Your task to perform on an android device: Add logitech g910 to the cart on walmart.com, then select checkout. Image 0: 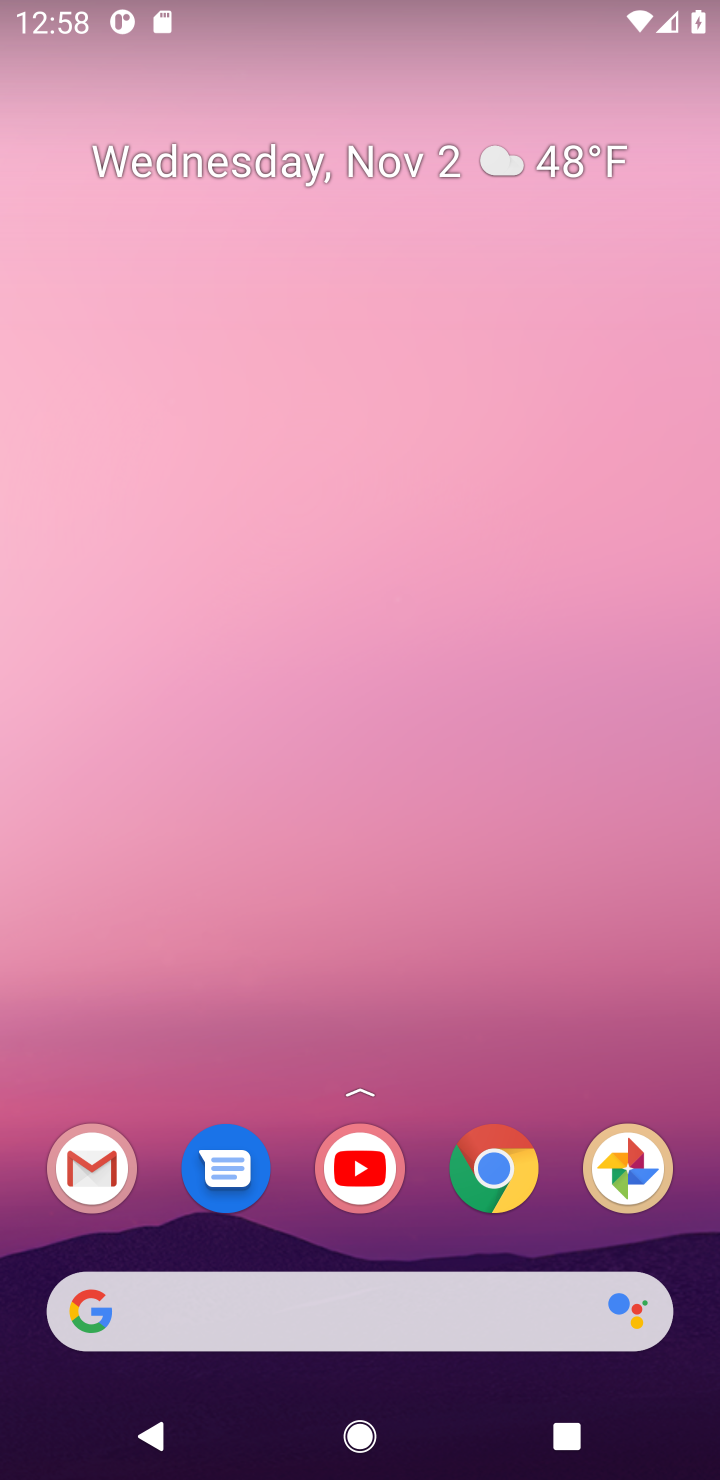
Step 0: drag from (348, 1217) to (433, 345)
Your task to perform on an android device: Add logitech g910 to the cart on walmart.com, then select checkout. Image 1: 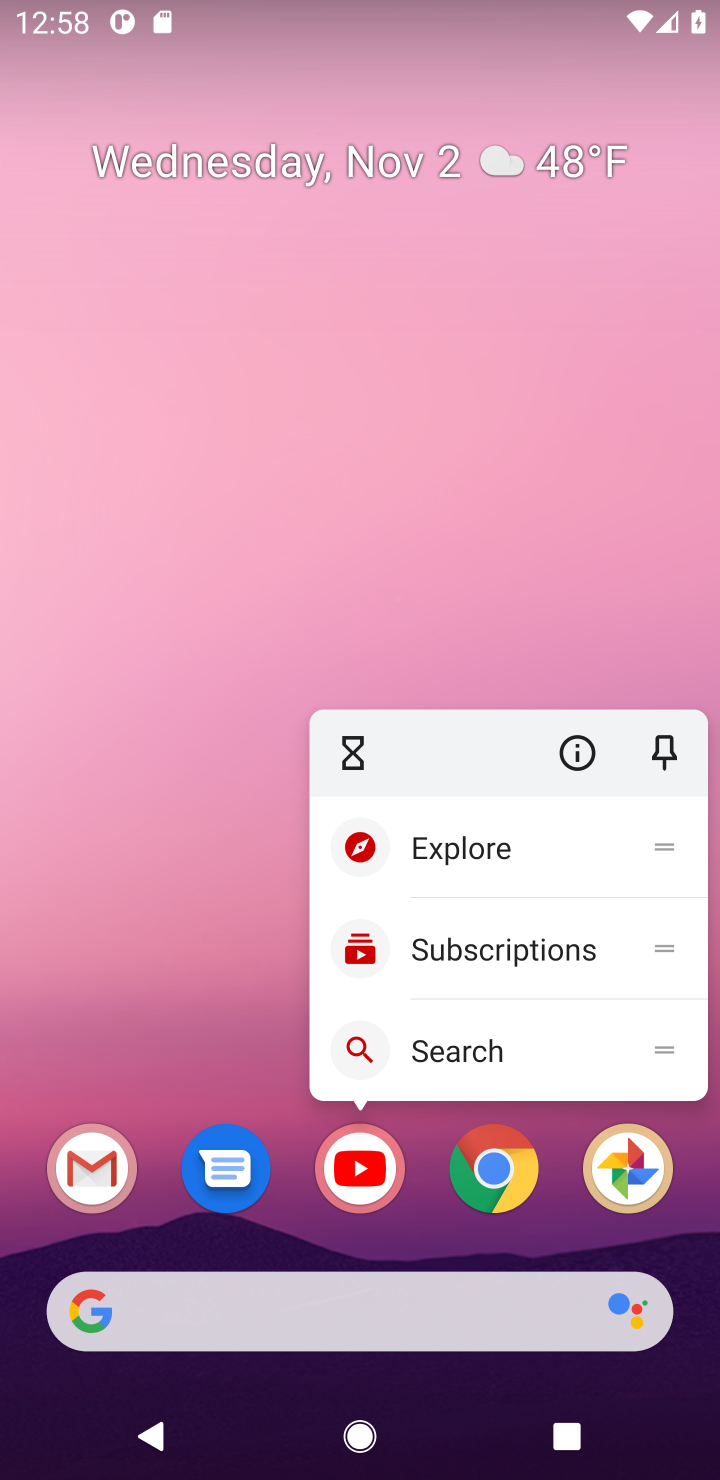
Step 1: click (349, 1230)
Your task to perform on an android device: Add logitech g910 to the cart on walmart.com, then select checkout. Image 2: 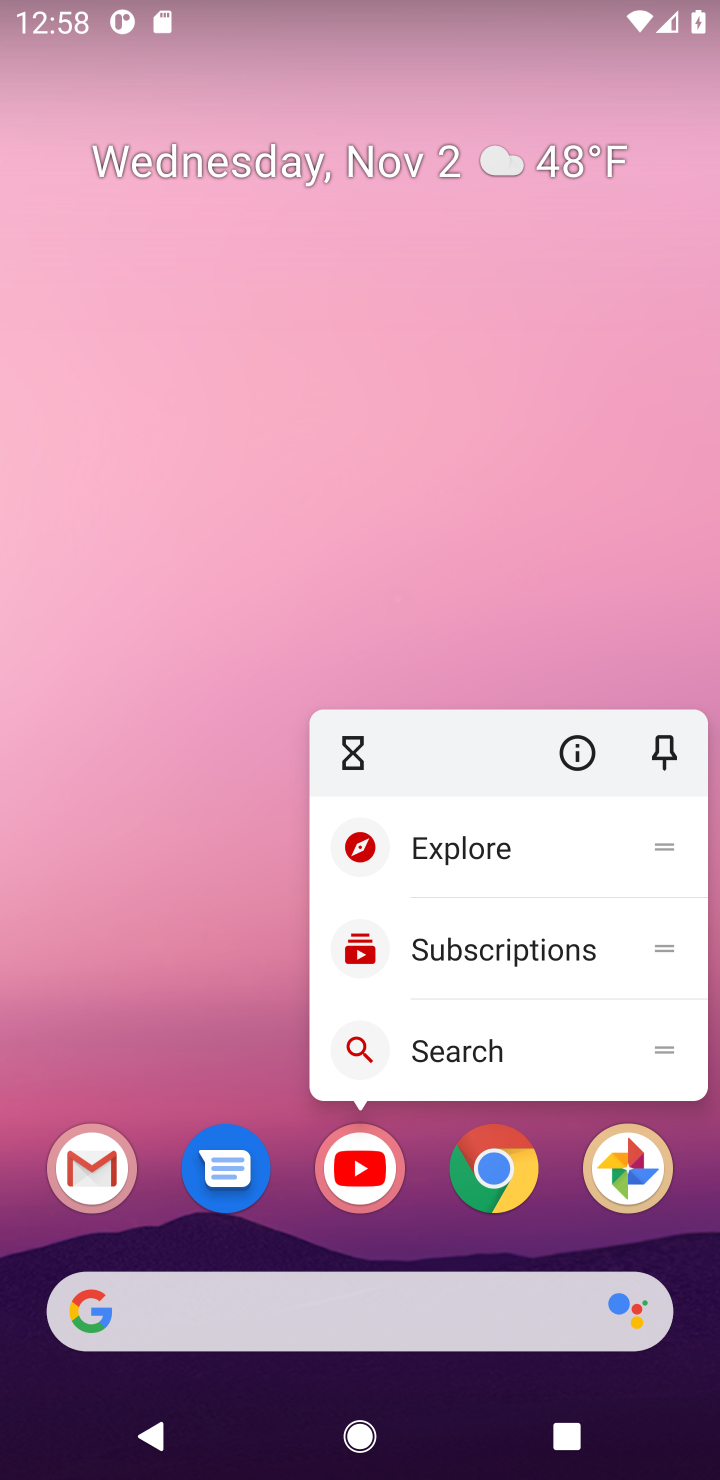
Step 2: click (310, 1255)
Your task to perform on an android device: Add logitech g910 to the cart on walmart.com, then select checkout. Image 3: 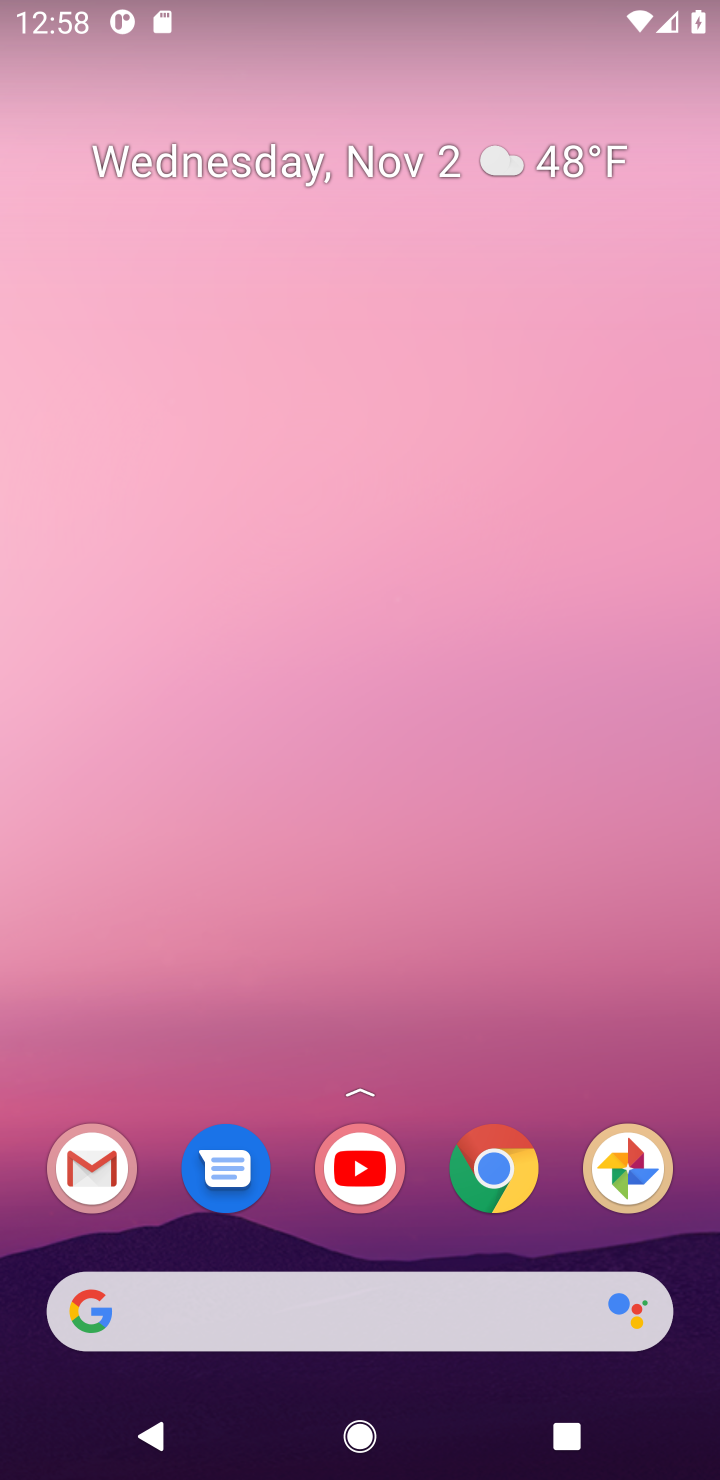
Step 3: drag from (310, 1241) to (335, 534)
Your task to perform on an android device: Add logitech g910 to the cart on walmart.com, then select checkout. Image 4: 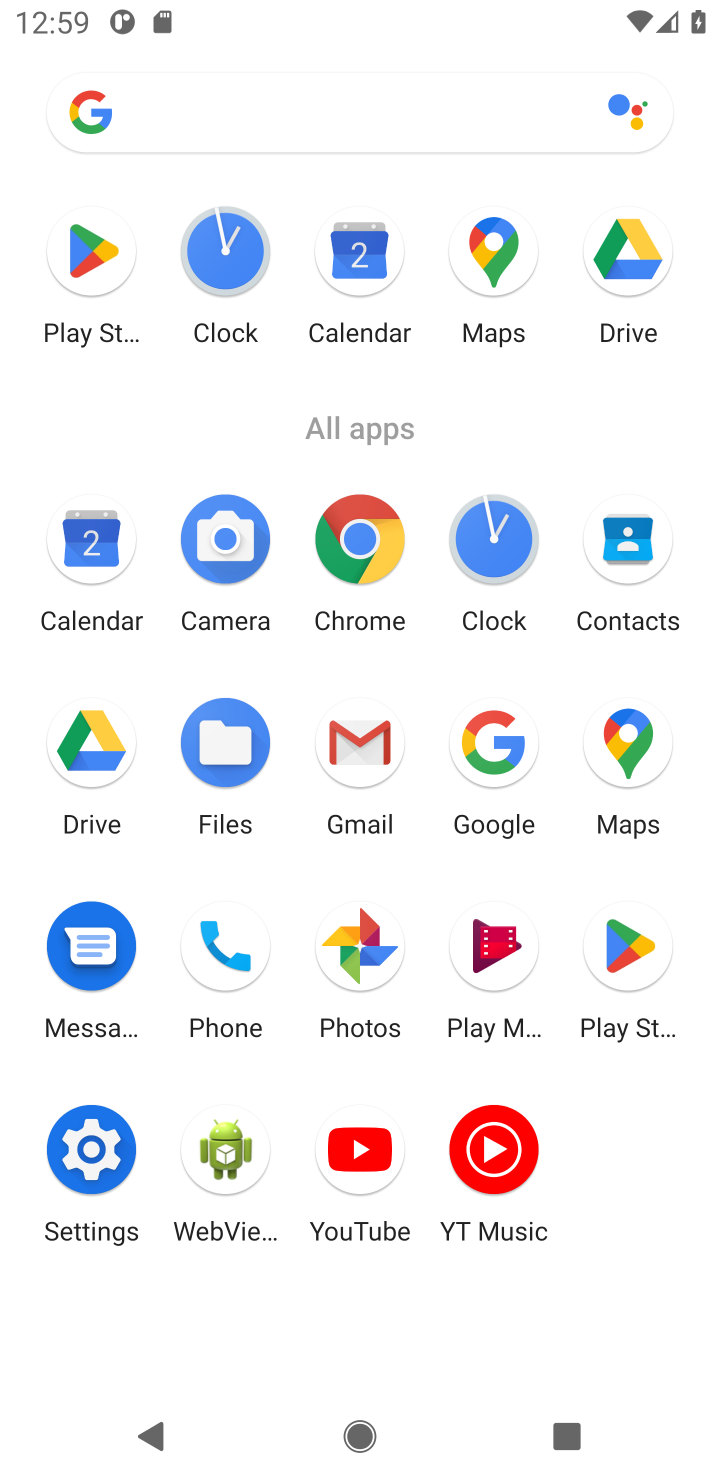
Step 4: click (499, 756)
Your task to perform on an android device: Add logitech g910 to the cart on walmart.com, then select checkout. Image 5: 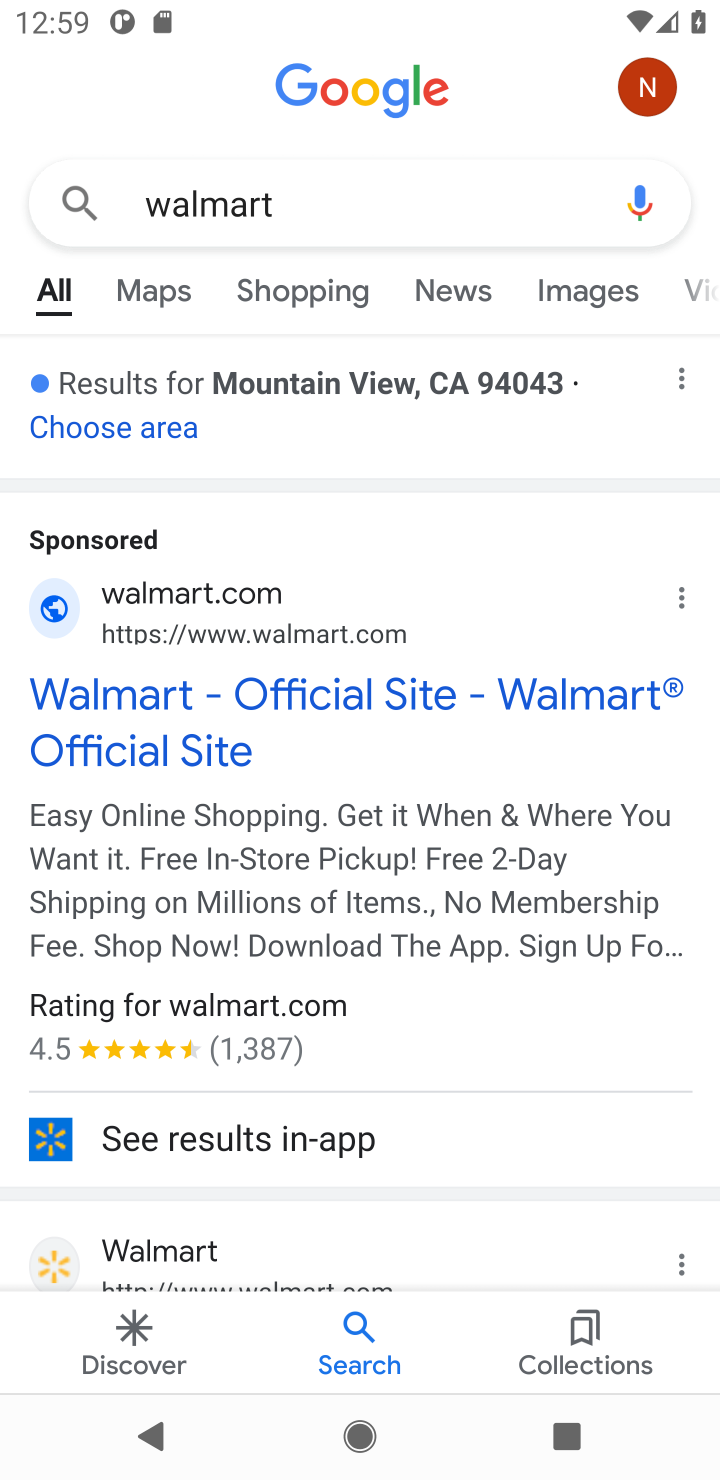
Step 5: click (312, 185)
Your task to perform on an android device: Add logitech g910 to the cart on walmart.com, then select checkout. Image 6: 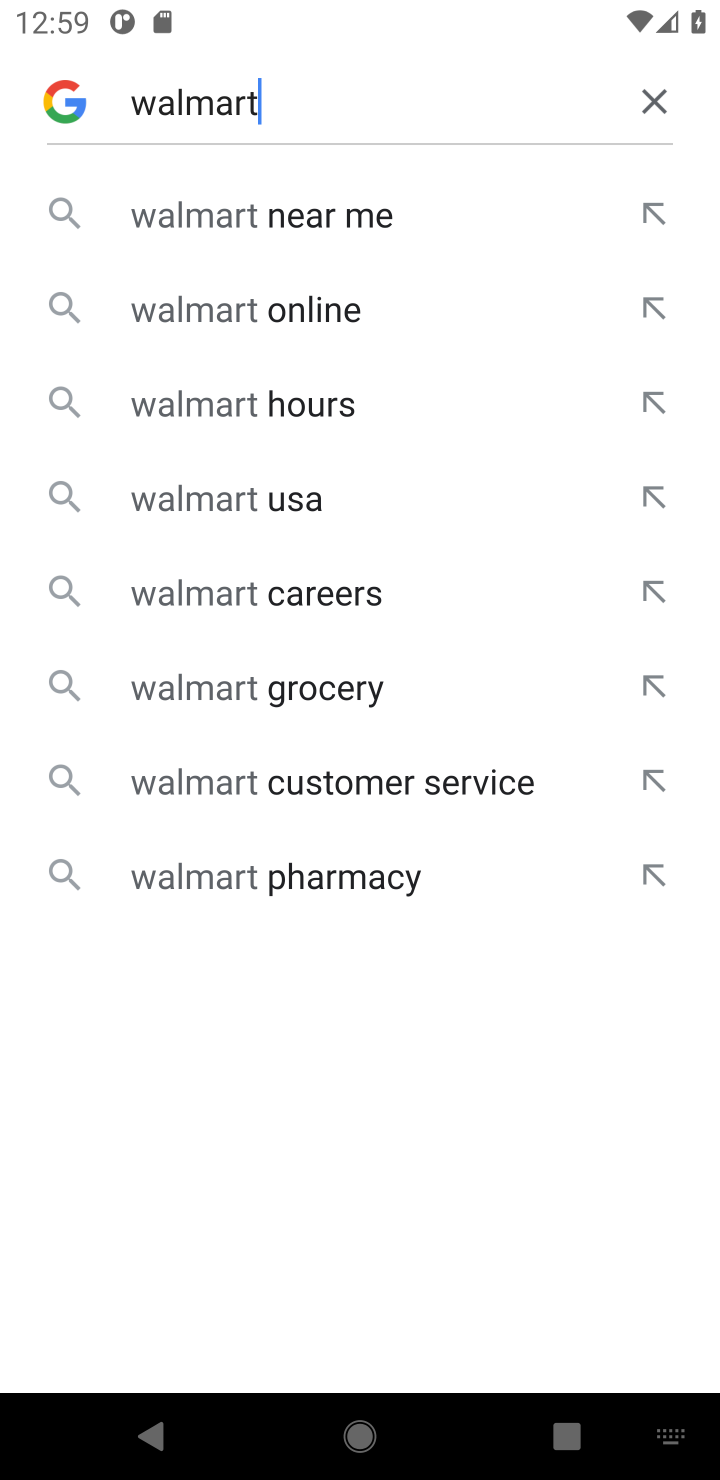
Step 6: click (662, 89)
Your task to perform on an android device: Add logitech g910 to the cart on walmart.com, then select checkout. Image 7: 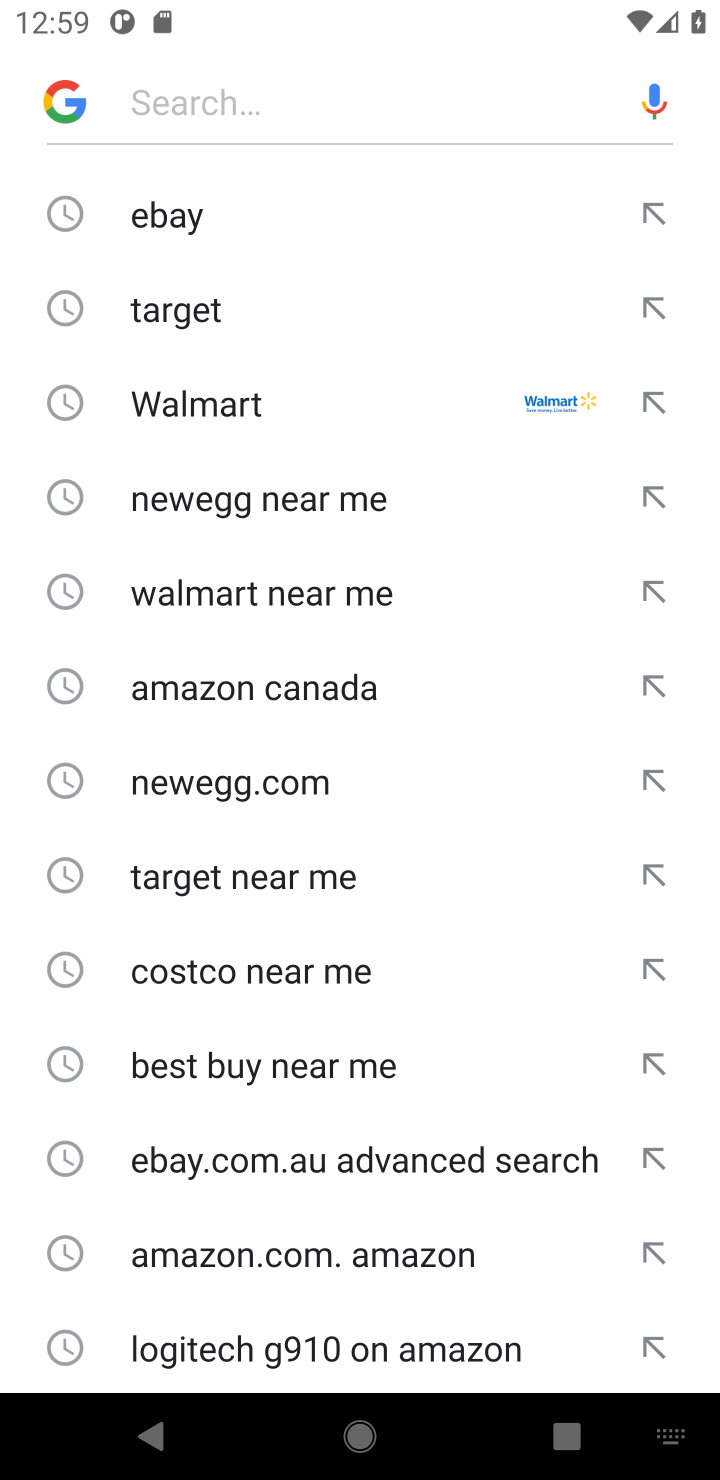
Step 7: type "logitech g910 t"
Your task to perform on an android device: Add logitech g910 to the cart on walmart.com, then select checkout. Image 8: 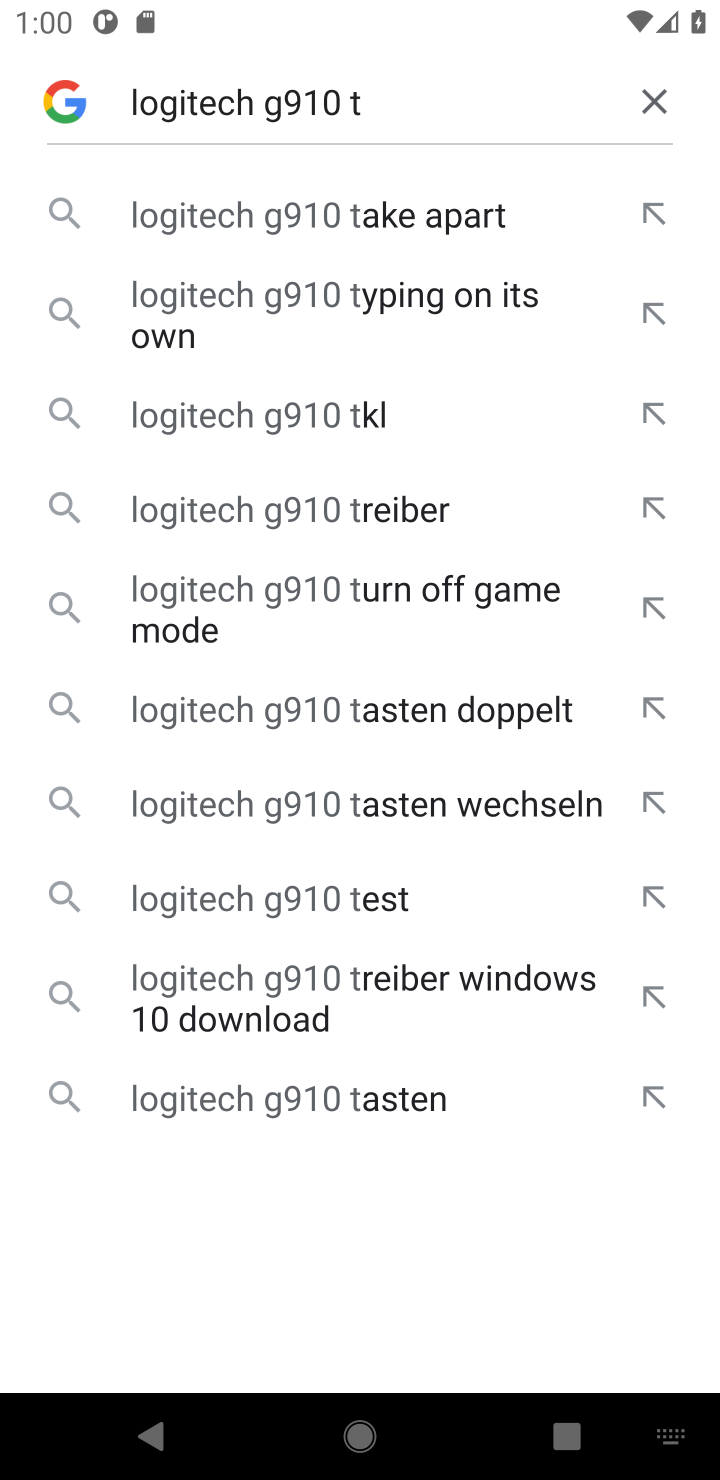
Step 8: click (648, 102)
Your task to perform on an android device: Add logitech g910 to the cart on walmart.com, then select checkout. Image 9: 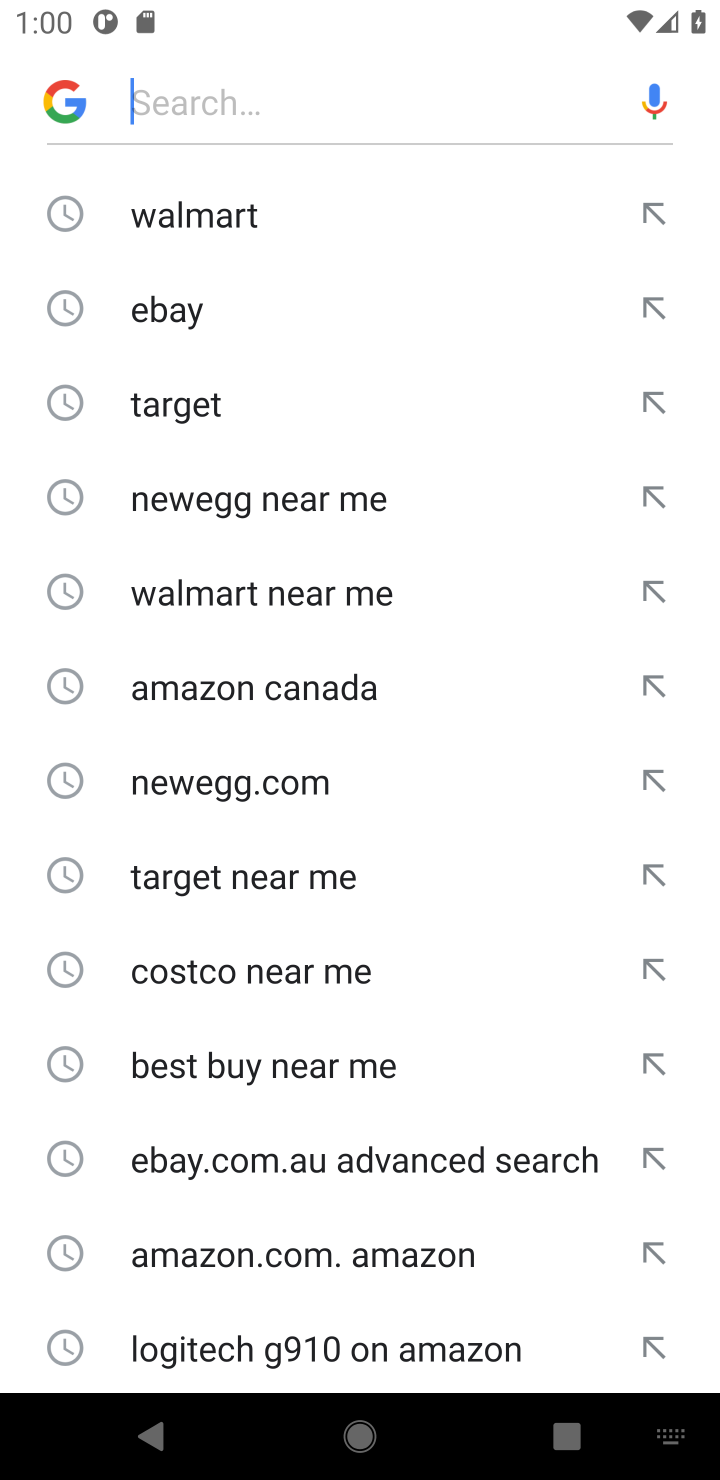
Step 9: type "walmart.com"
Your task to perform on an android device: Add logitech g910 to the cart on walmart.com, then select checkout. Image 10: 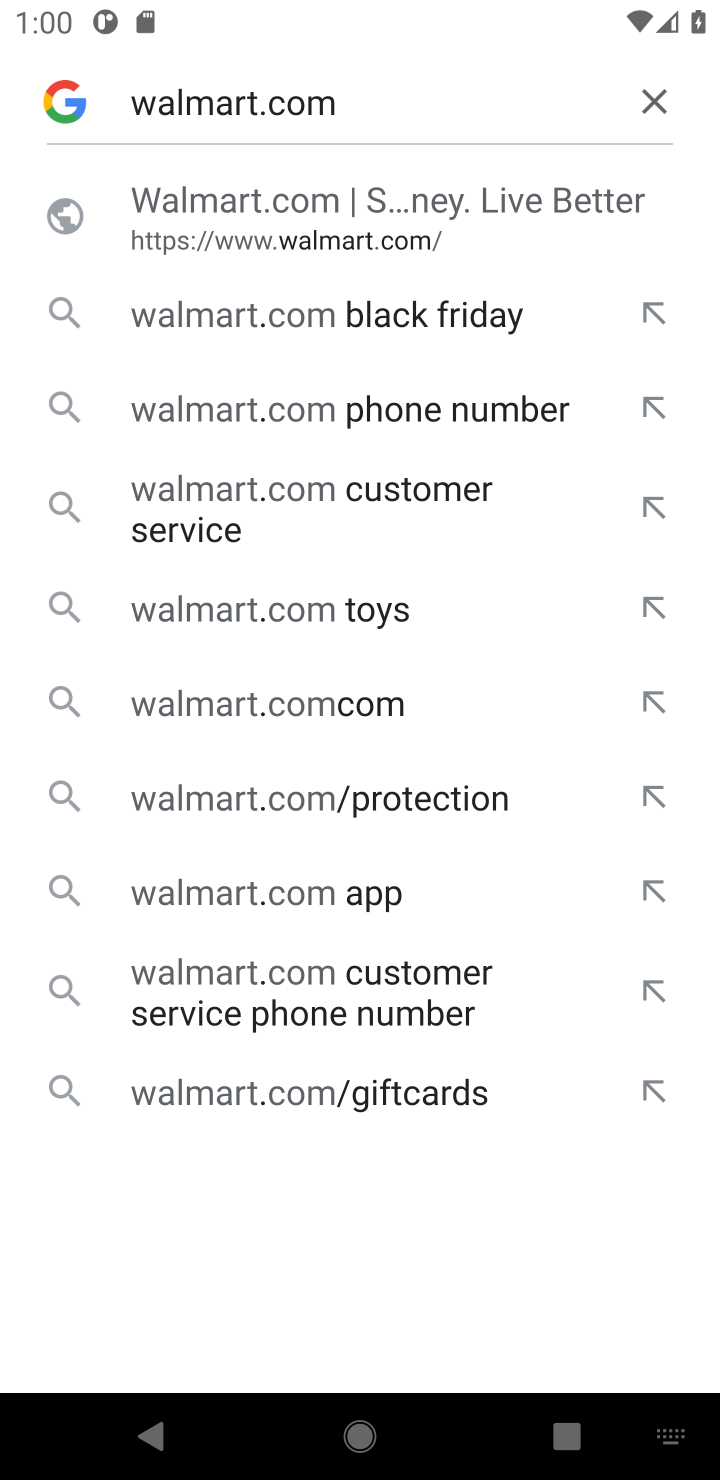
Step 10: click (372, 209)
Your task to perform on an android device: Add logitech g910 to the cart on walmart.com, then select checkout. Image 11: 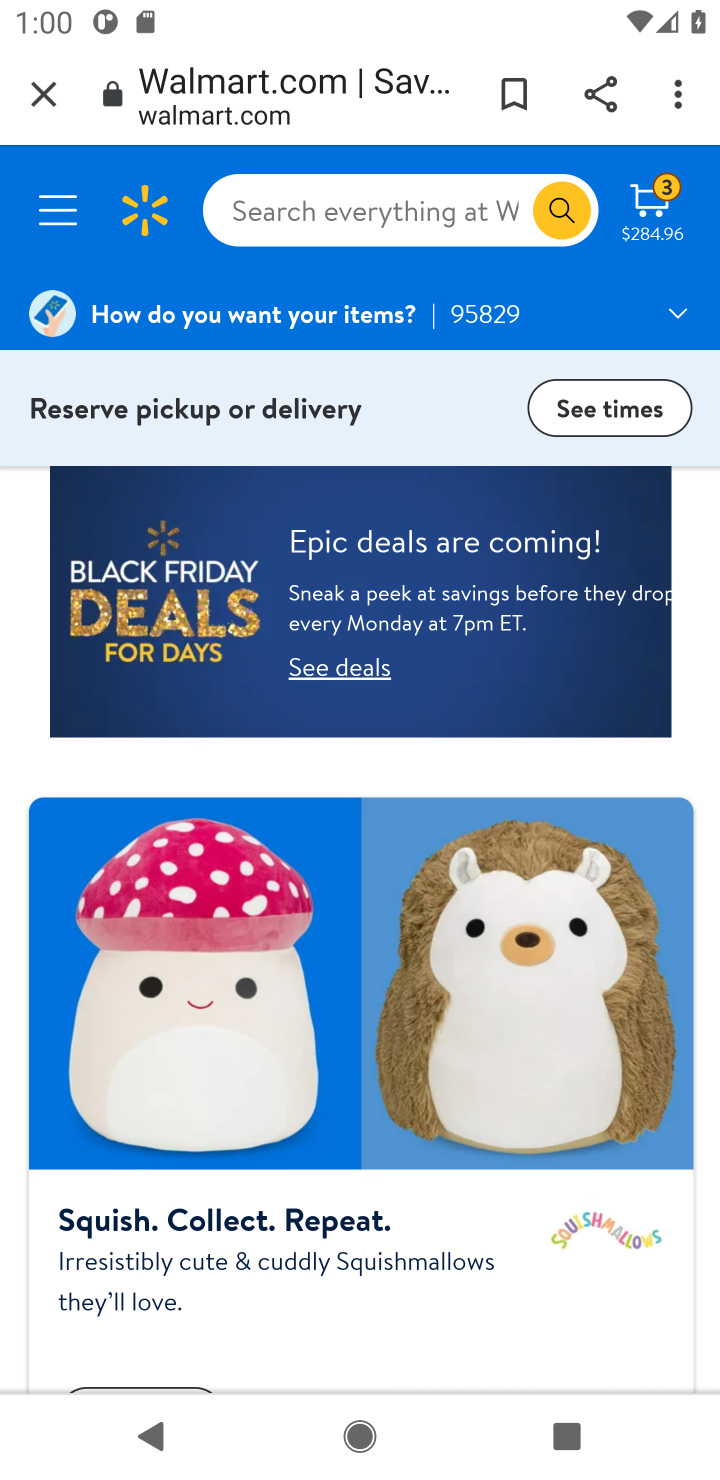
Step 11: click (293, 194)
Your task to perform on an android device: Add logitech g910 to the cart on walmart.com, then select checkout. Image 12: 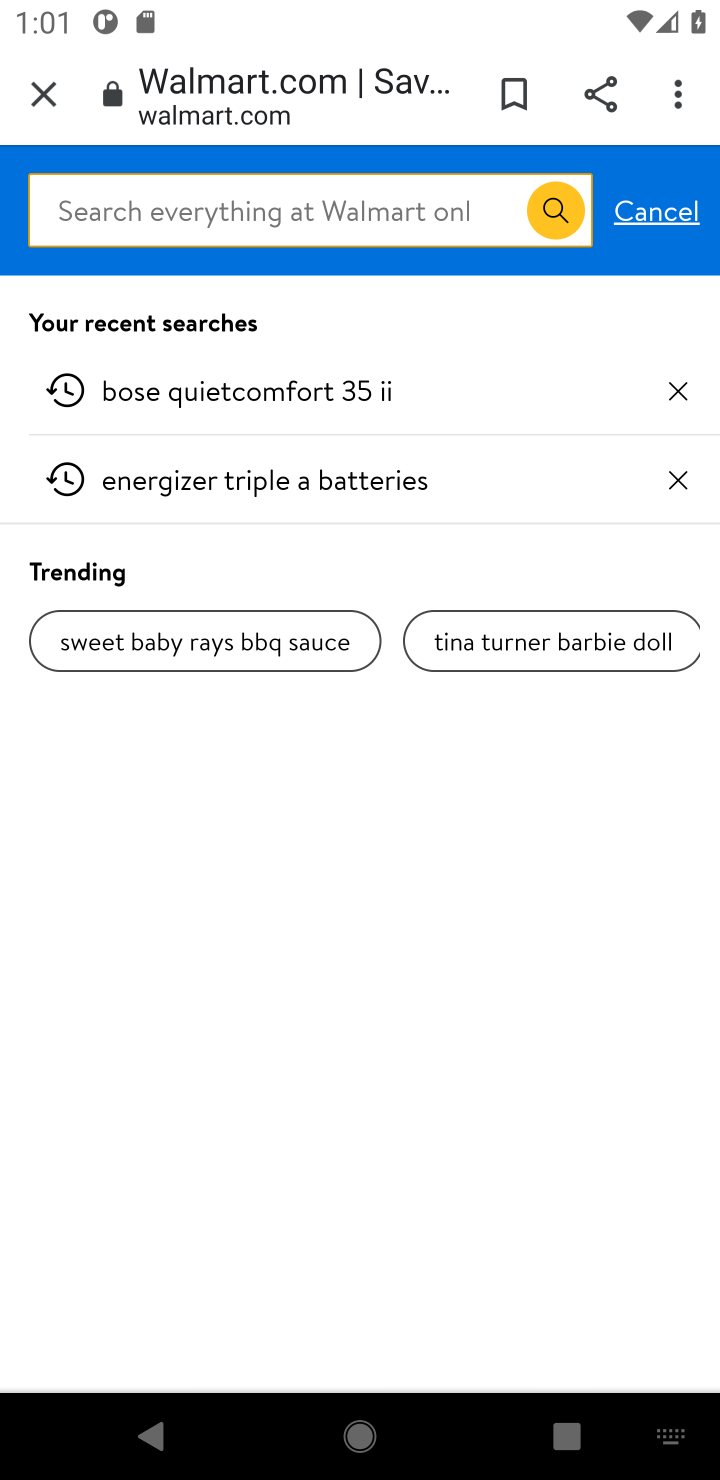
Step 12: type " g910"
Your task to perform on an android device: Add logitech g910 to the cart on walmart.com, then select checkout. Image 13: 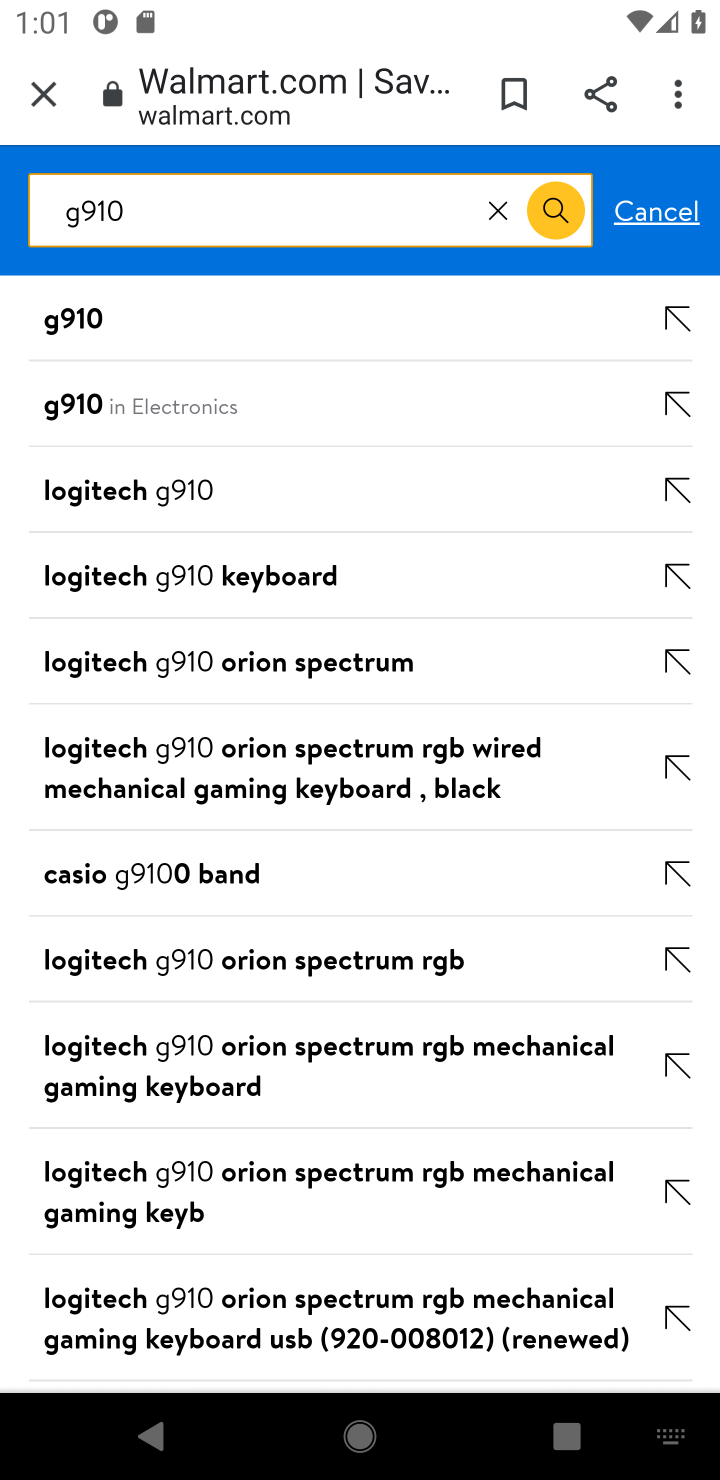
Step 13: click (80, 315)
Your task to perform on an android device: Add logitech g910 to the cart on walmart.com, then select checkout. Image 14: 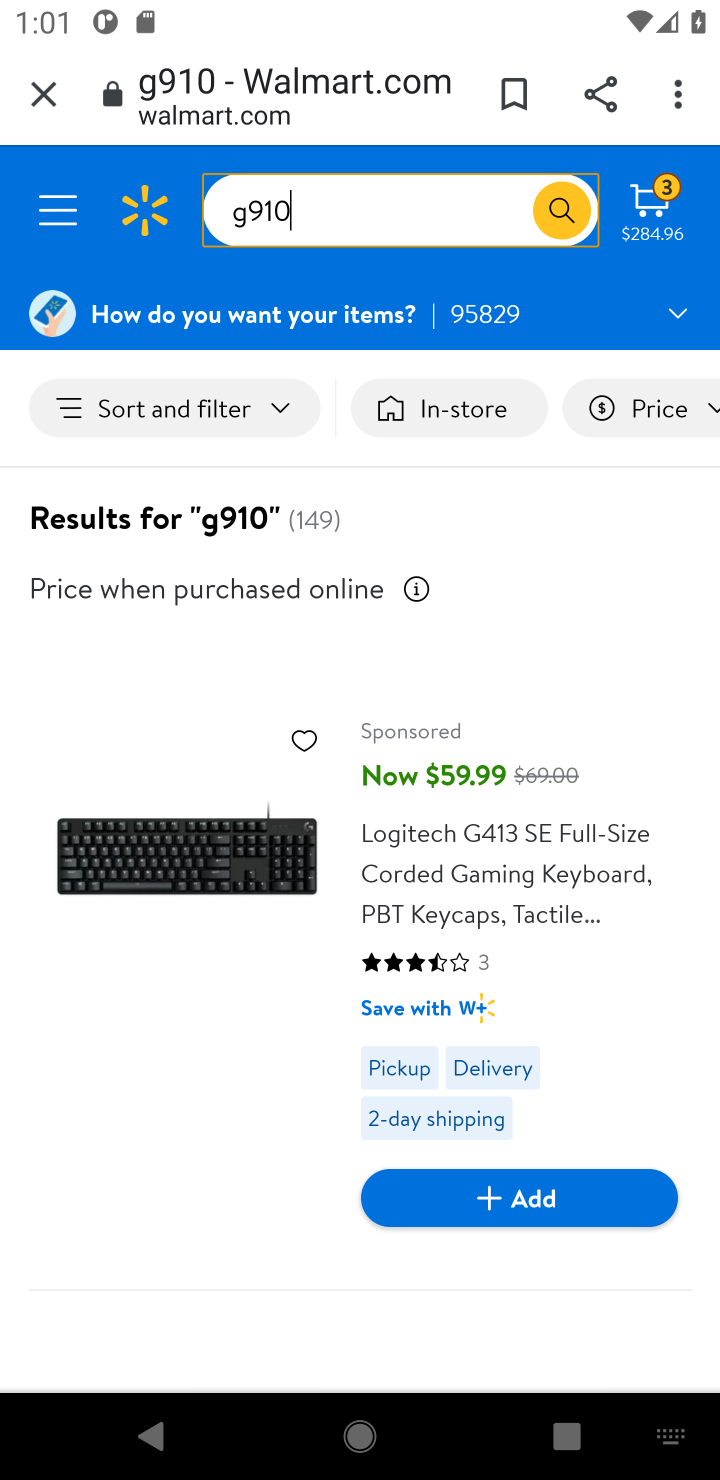
Step 14: click (539, 1184)
Your task to perform on an android device: Add logitech g910 to the cart on walmart.com, then select checkout. Image 15: 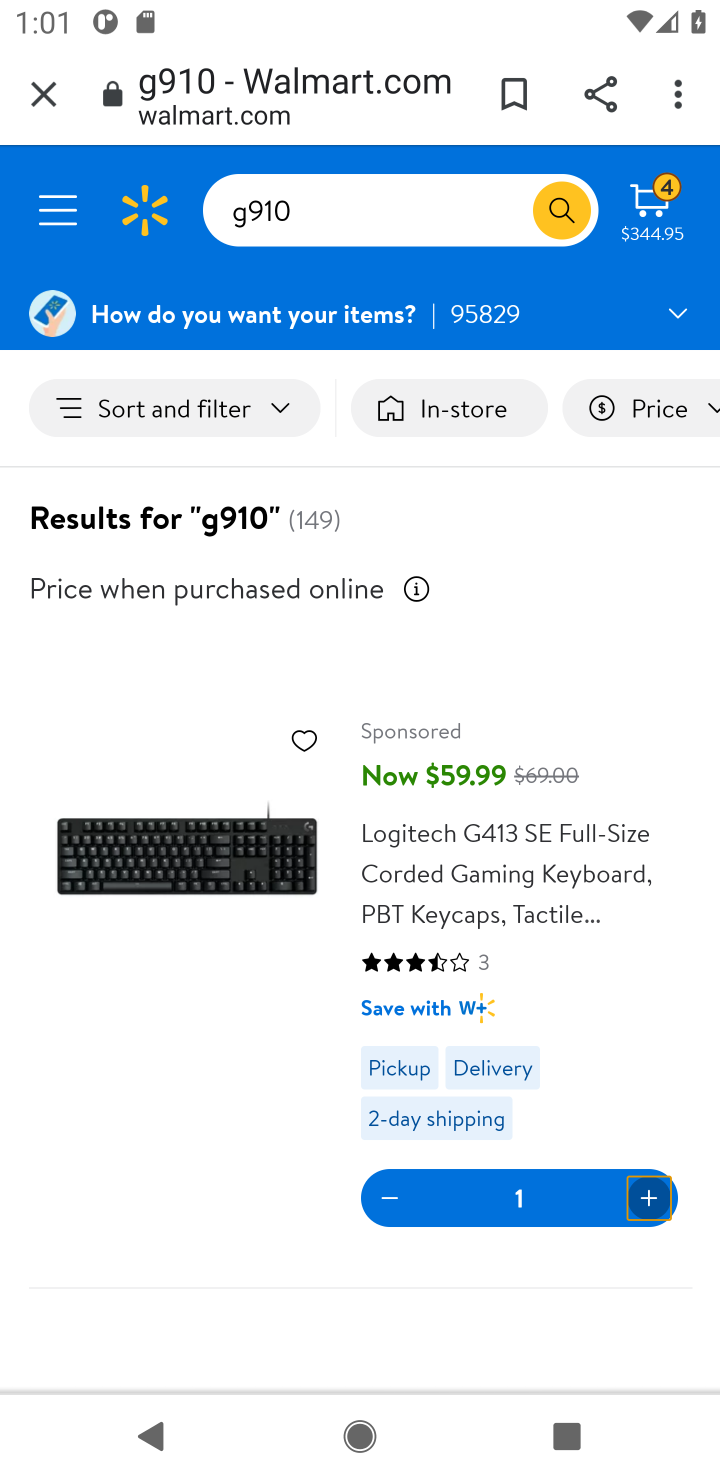
Step 15: click (654, 210)
Your task to perform on an android device: Add logitech g910 to the cart on walmart.com, then select checkout. Image 16: 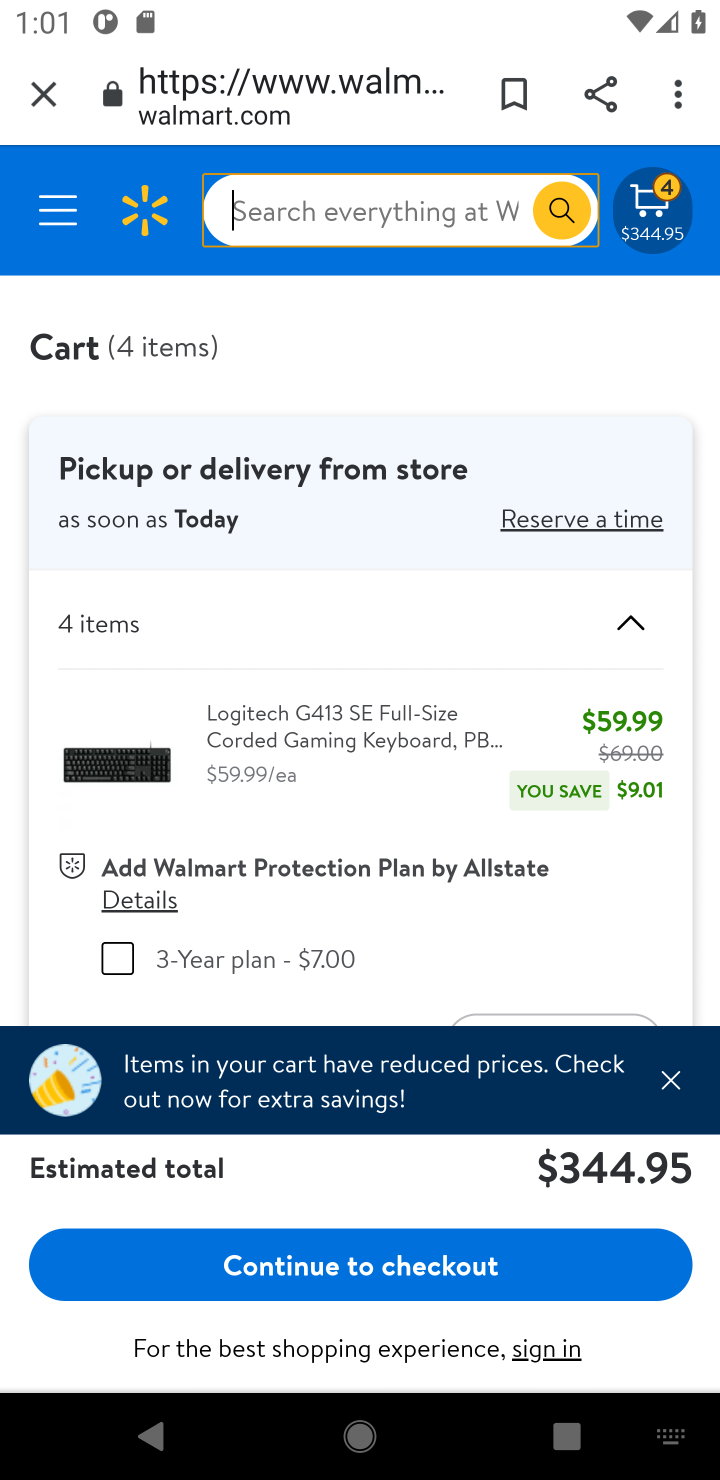
Step 16: click (370, 1265)
Your task to perform on an android device: Add logitech g910 to the cart on walmart.com, then select checkout. Image 17: 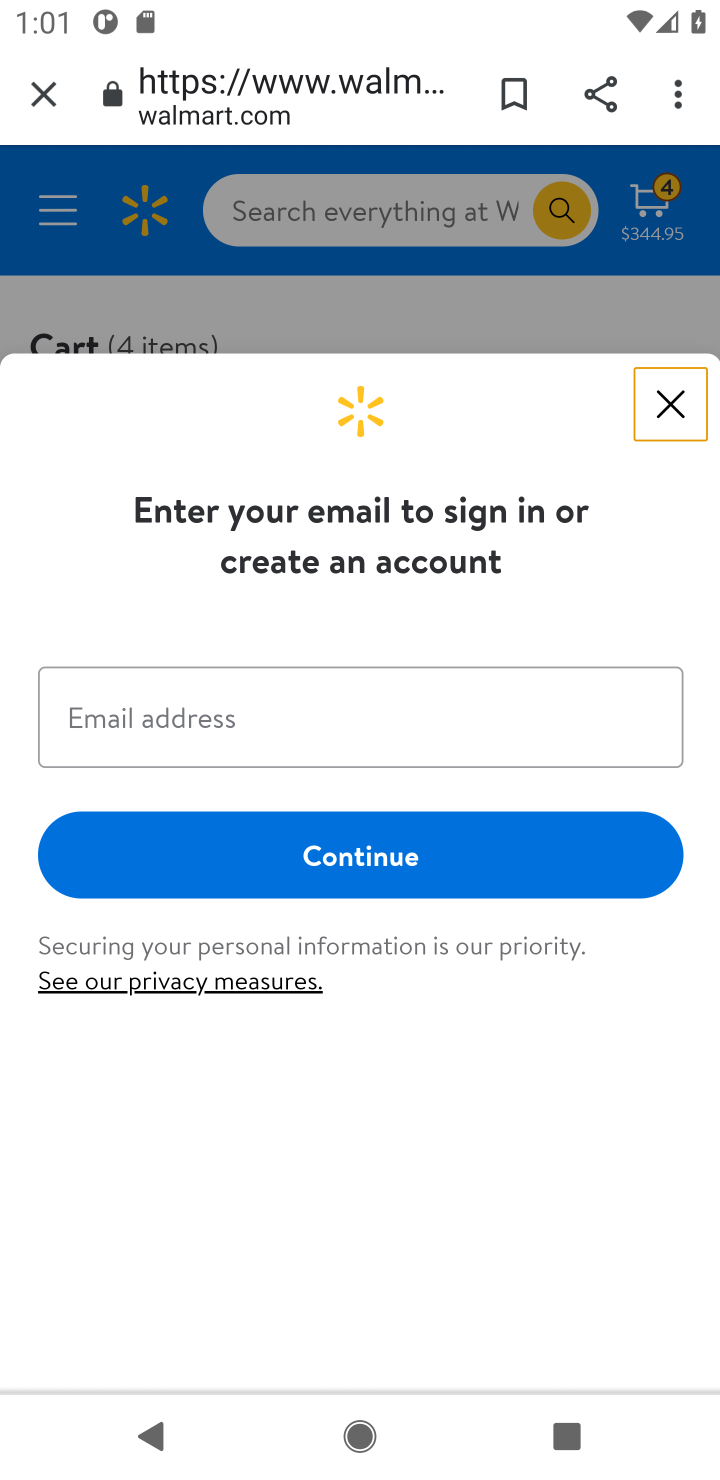
Step 17: task complete